Your task to perform on an android device: Open maps Image 0: 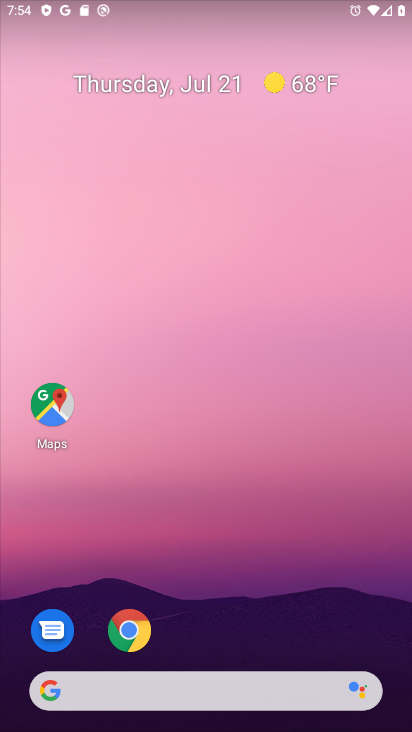
Step 0: drag from (271, 603) to (262, 3)
Your task to perform on an android device: Open maps Image 1: 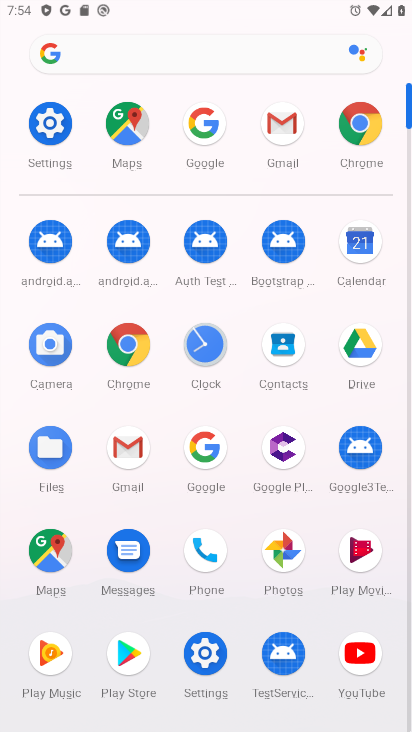
Step 1: click (44, 557)
Your task to perform on an android device: Open maps Image 2: 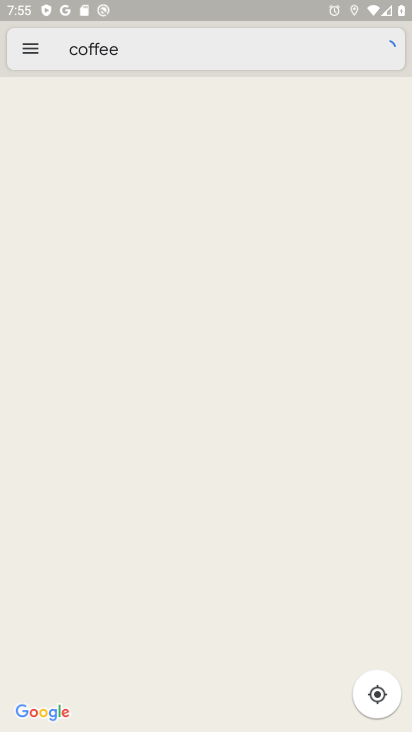
Step 2: task complete